Your task to perform on an android device: change timer sound Image 0: 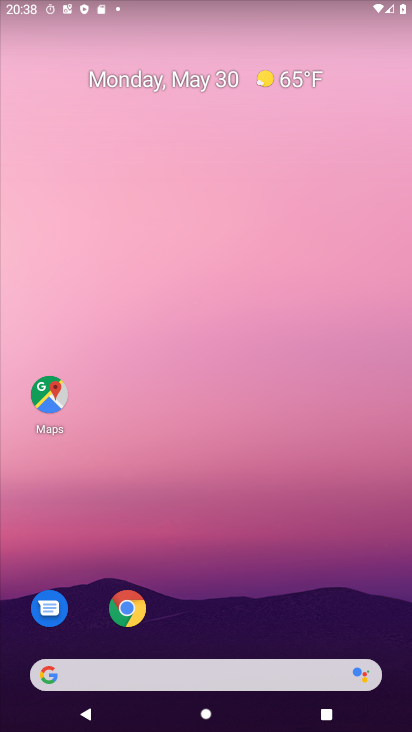
Step 0: drag from (211, 614) to (191, 232)
Your task to perform on an android device: change timer sound Image 1: 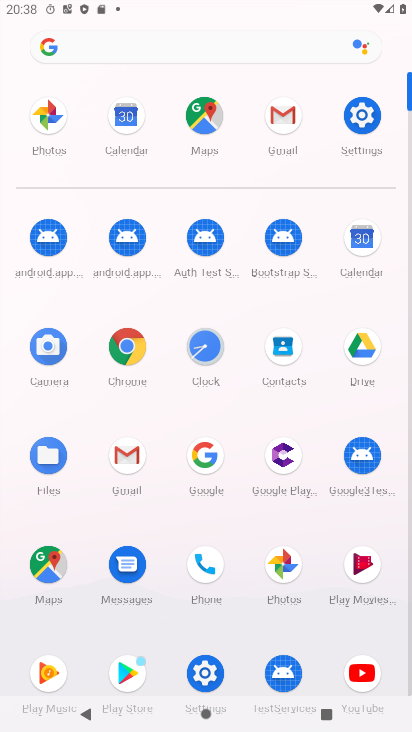
Step 1: click (198, 337)
Your task to perform on an android device: change timer sound Image 2: 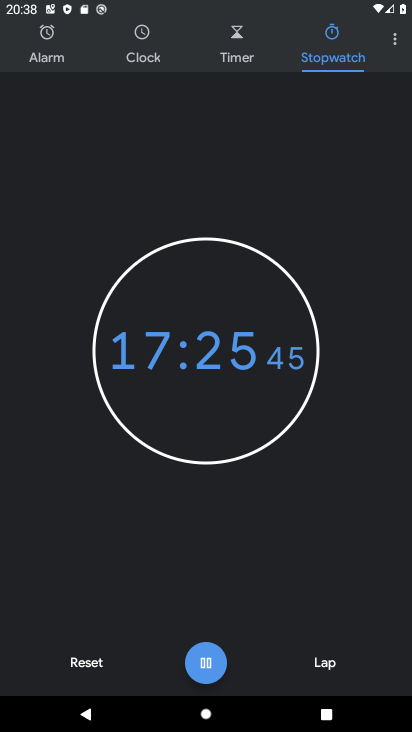
Step 2: click (388, 40)
Your task to perform on an android device: change timer sound Image 3: 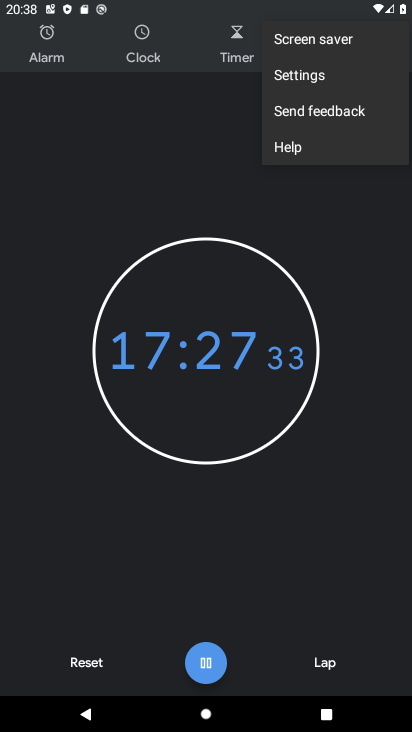
Step 3: click (344, 67)
Your task to perform on an android device: change timer sound Image 4: 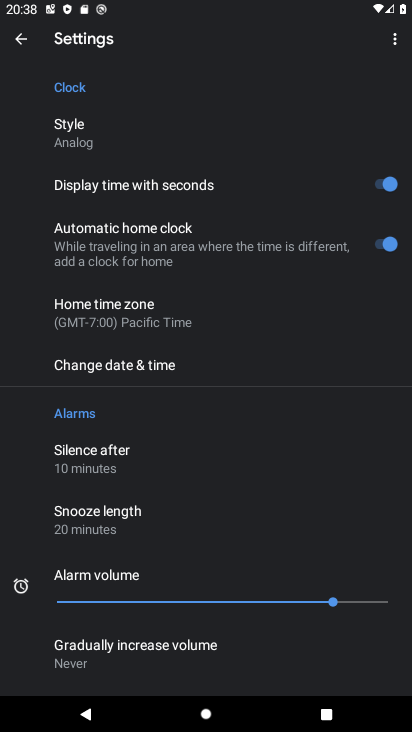
Step 4: drag from (191, 531) to (202, 354)
Your task to perform on an android device: change timer sound Image 5: 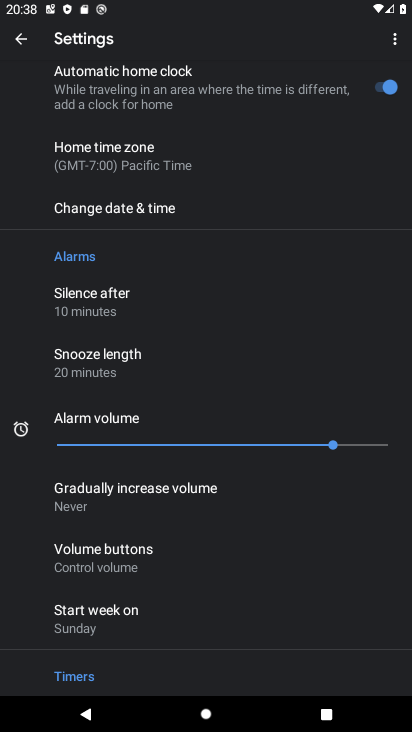
Step 5: drag from (181, 619) to (189, 325)
Your task to perform on an android device: change timer sound Image 6: 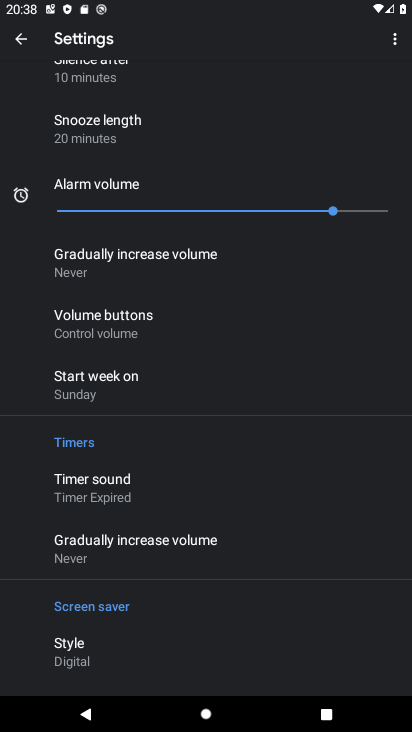
Step 6: click (119, 475)
Your task to perform on an android device: change timer sound Image 7: 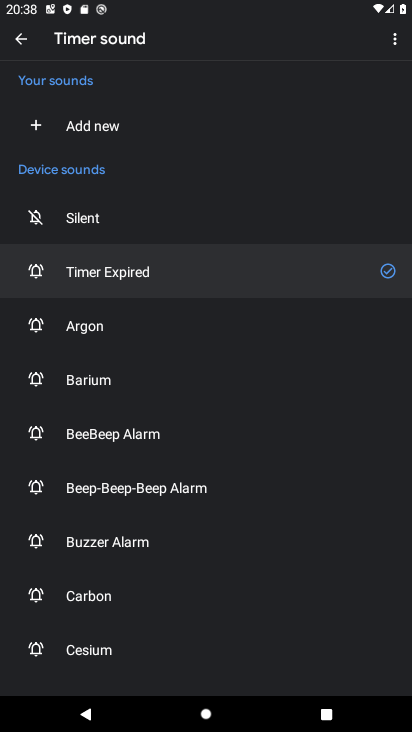
Step 7: click (132, 368)
Your task to perform on an android device: change timer sound Image 8: 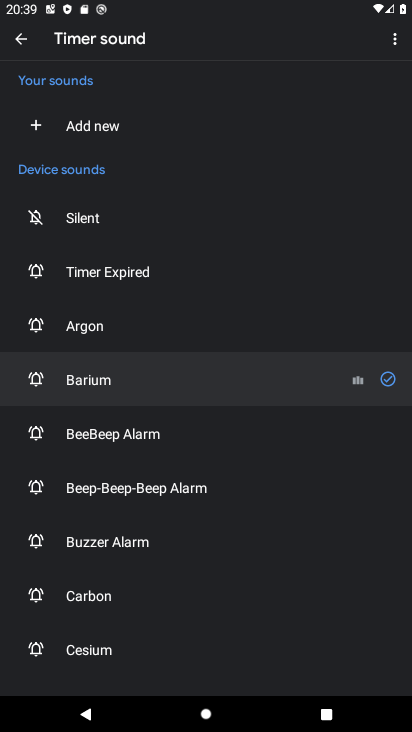
Step 8: task complete